Your task to perform on an android device: Open notification settings Image 0: 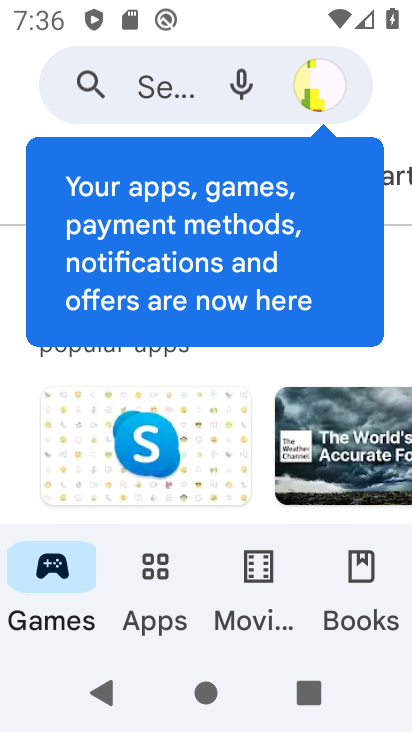
Step 0: press home button
Your task to perform on an android device: Open notification settings Image 1: 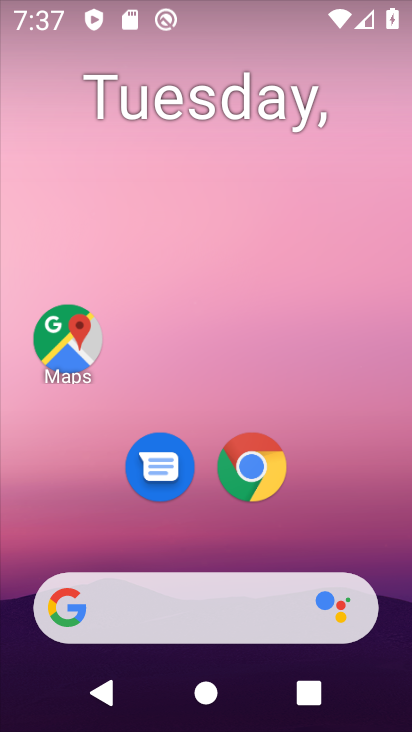
Step 1: drag from (387, 694) to (249, 109)
Your task to perform on an android device: Open notification settings Image 2: 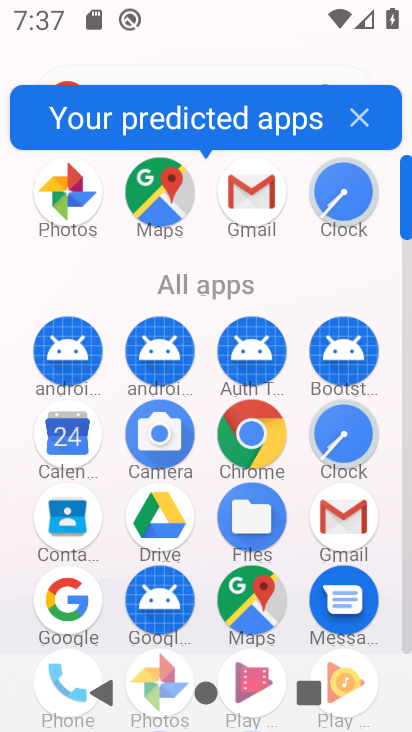
Step 2: drag from (407, 168) to (407, 73)
Your task to perform on an android device: Open notification settings Image 3: 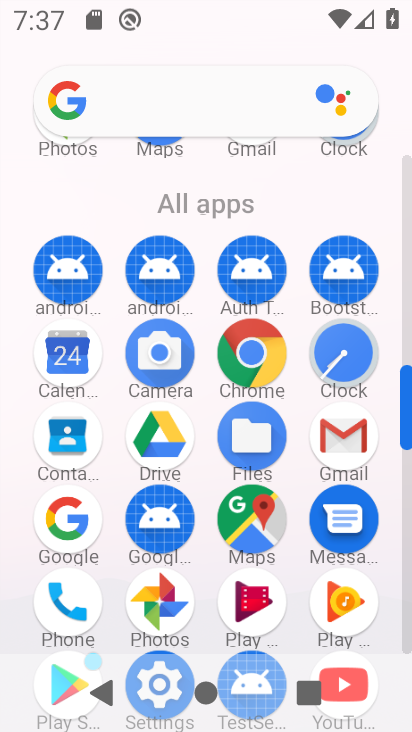
Step 3: drag from (409, 335) to (409, 230)
Your task to perform on an android device: Open notification settings Image 4: 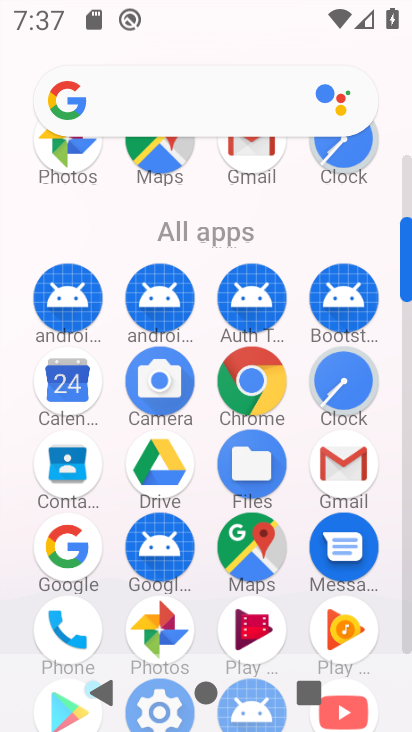
Step 4: drag from (411, 221) to (407, 147)
Your task to perform on an android device: Open notification settings Image 5: 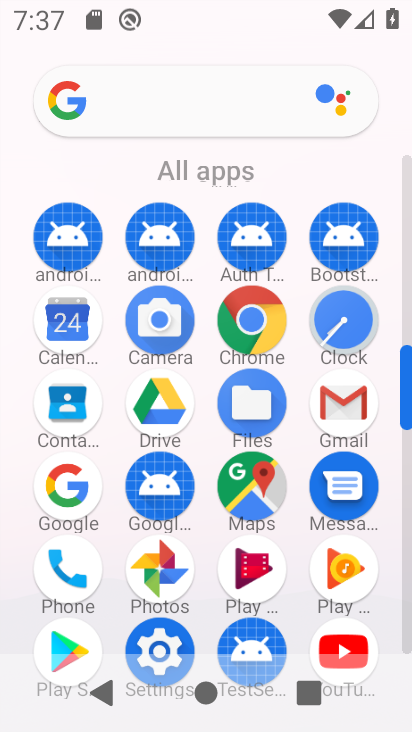
Step 5: click (154, 628)
Your task to perform on an android device: Open notification settings Image 6: 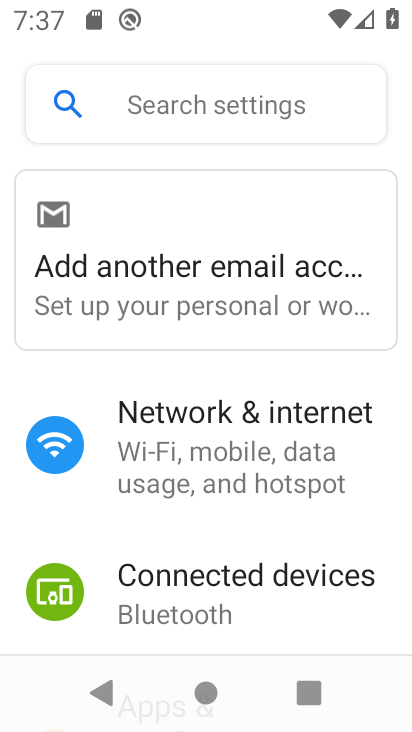
Step 6: click (262, 341)
Your task to perform on an android device: Open notification settings Image 7: 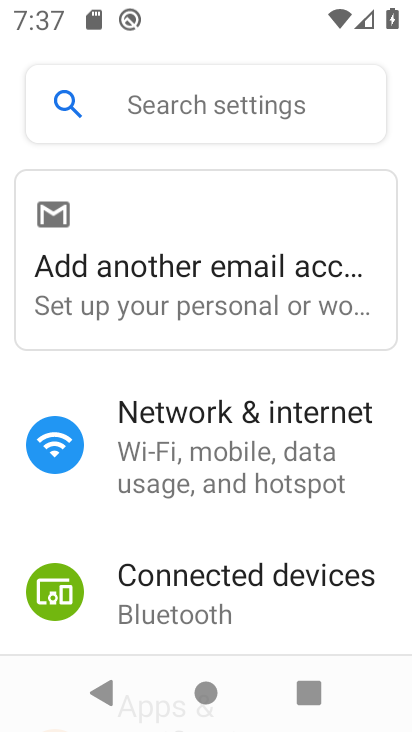
Step 7: drag from (276, 524) to (271, 274)
Your task to perform on an android device: Open notification settings Image 8: 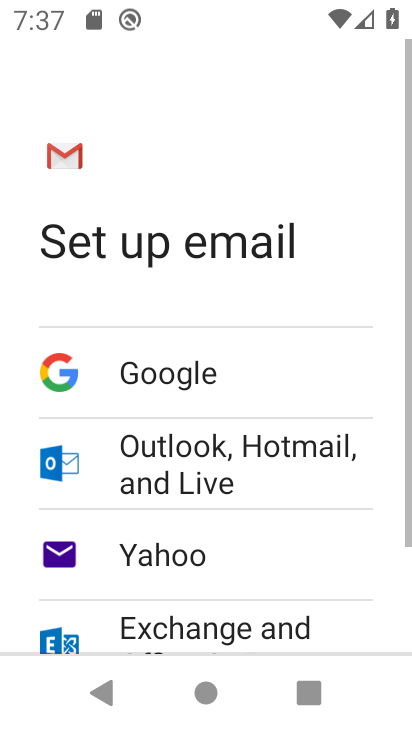
Step 8: press back button
Your task to perform on an android device: Open notification settings Image 9: 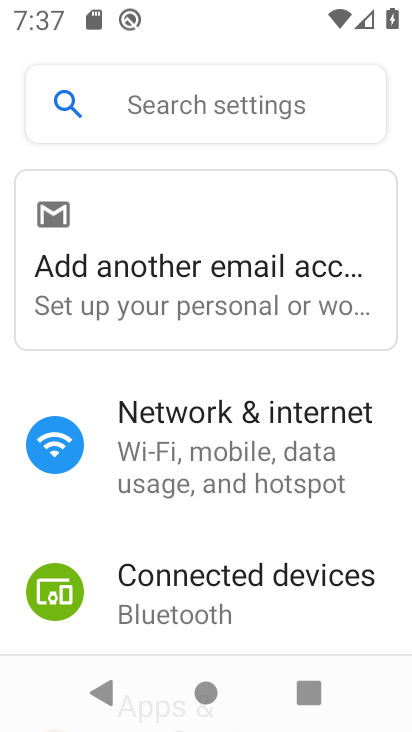
Step 9: drag from (288, 607) to (277, 300)
Your task to perform on an android device: Open notification settings Image 10: 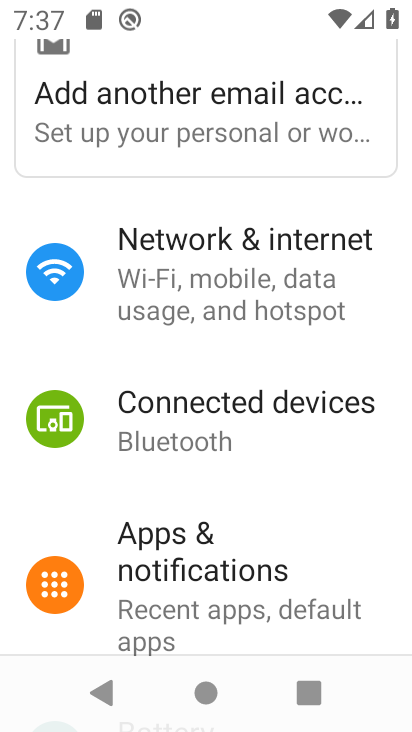
Step 10: click (161, 568)
Your task to perform on an android device: Open notification settings Image 11: 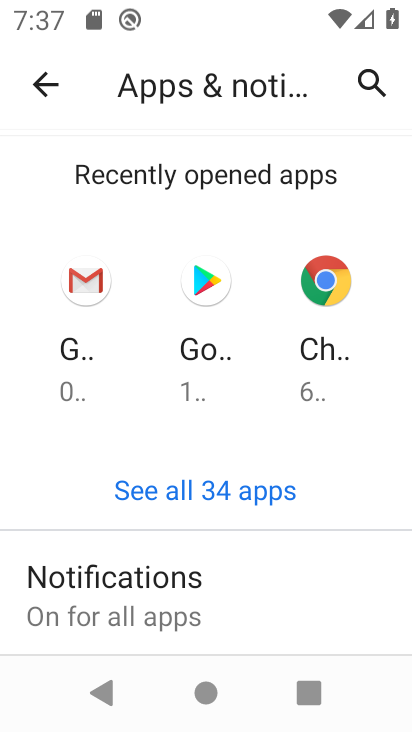
Step 11: click (126, 582)
Your task to perform on an android device: Open notification settings Image 12: 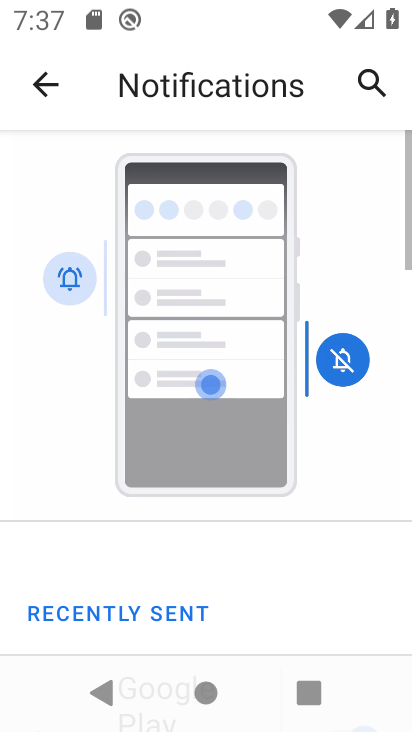
Step 12: task complete